Your task to perform on an android device: Open accessibility settings Image 0: 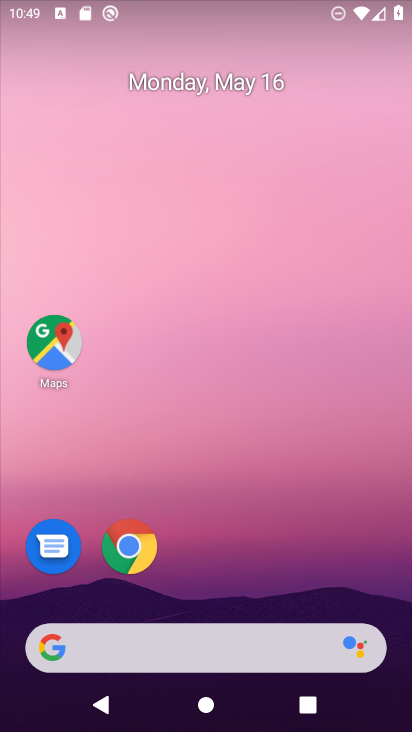
Step 0: drag from (231, 611) to (252, 302)
Your task to perform on an android device: Open accessibility settings Image 1: 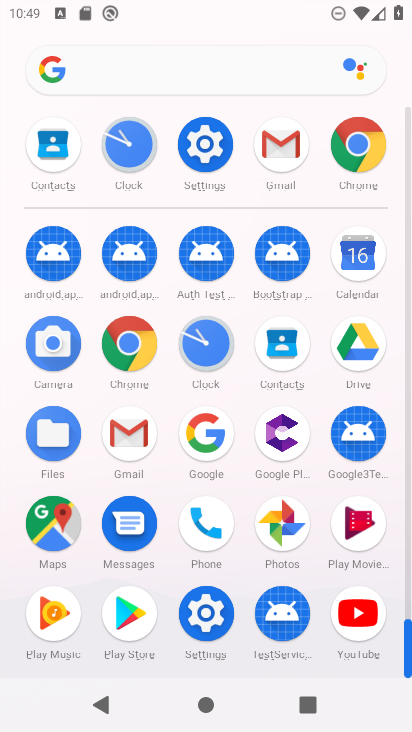
Step 1: click (213, 146)
Your task to perform on an android device: Open accessibility settings Image 2: 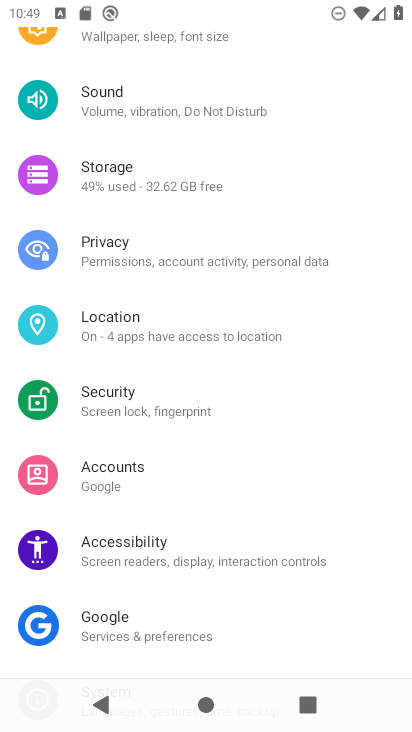
Step 2: click (126, 585)
Your task to perform on an android device: Open accessibility settings Image 3: 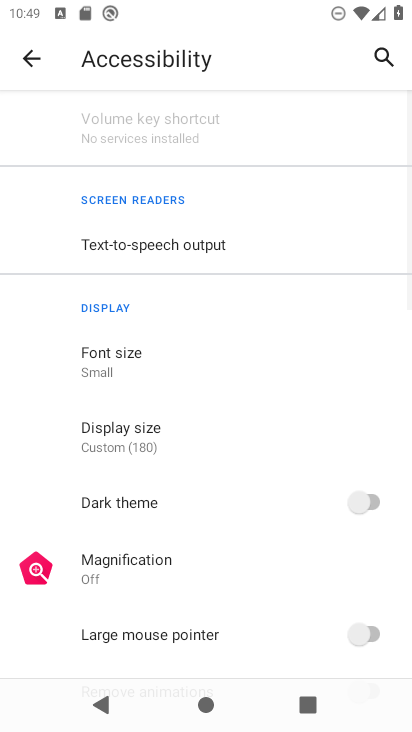
Step 3: task complete